Your task to perform on an android device: check android version Image 0: 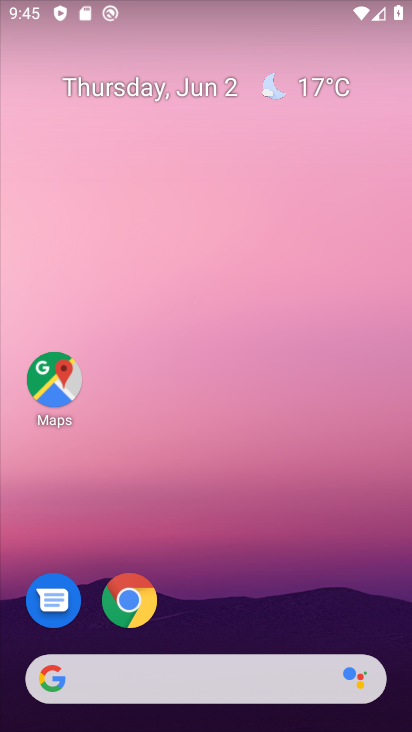
Step 0: drag from (229, 512) to (187, 22)
Your task to perform on an android device: check android version Image 1: 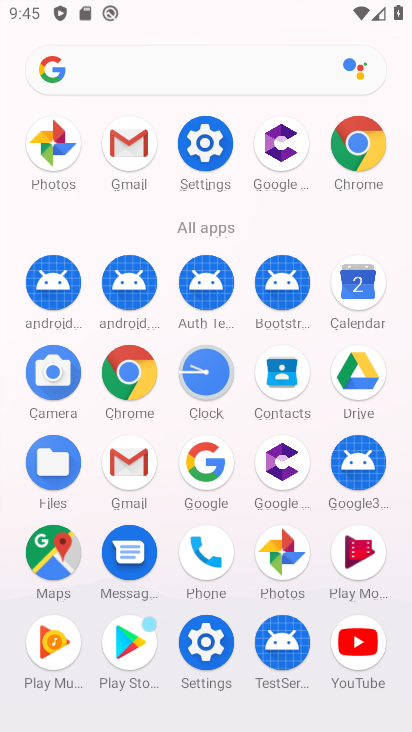
Step 1: click (206, 639)
Your task to perform on an android device: check android version Image 2: 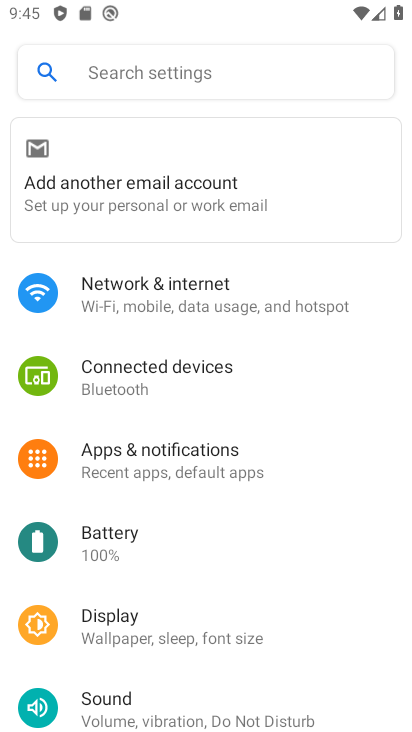
Step 2: drag from (322, 610) to (273, 173)
Your task to perform on an android device: check android version Image 3: 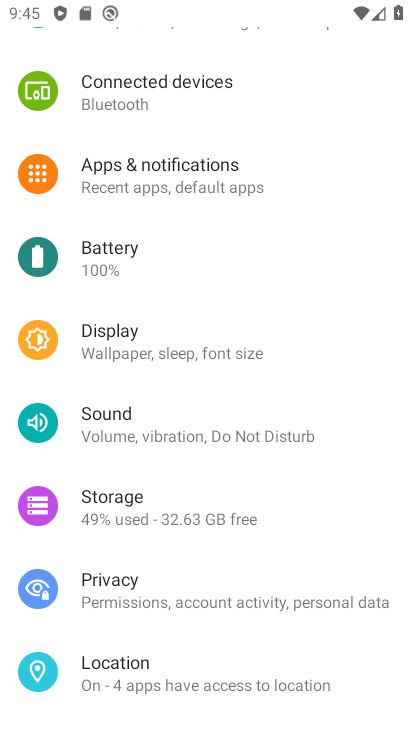
Step 3: drag from (321, 529) to (290, 164)
Your task to perform on an android device: check android version Image 4: 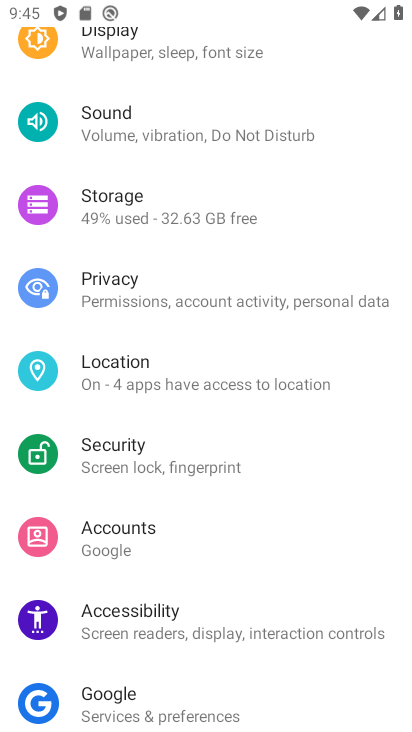
Step 4: drag from (310, 549) to (304, 167)
Your task to perform on an android device: check android version Image 5: 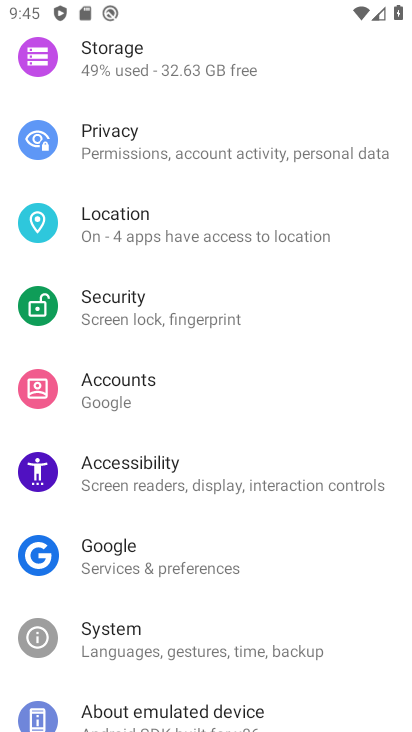
Step 5: drag from (262, 639) to (279, 196)
Your task to perform on an android device: check android version Image 6: 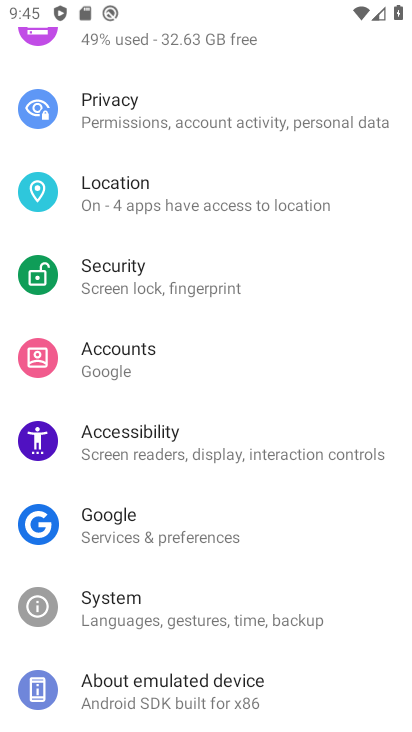
Step 6: click (221, 676)
Your task to perform on an android device: check android version Image 7: 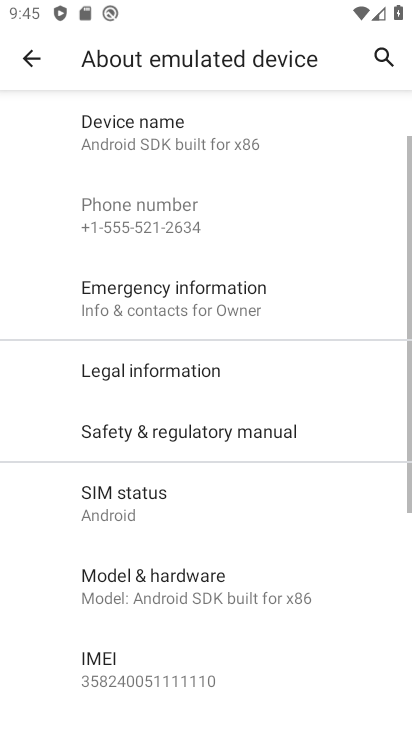
Step 7: task complete